Your task to perform on an android device: turn on notifications settings in the gmail app Image 0: 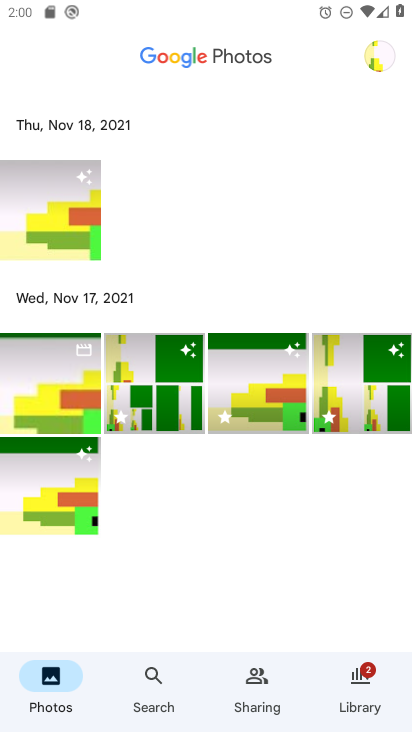
Step 0: press home button
Your task to perform on an android device: turn on notifications settings in the gmail app Image 1: 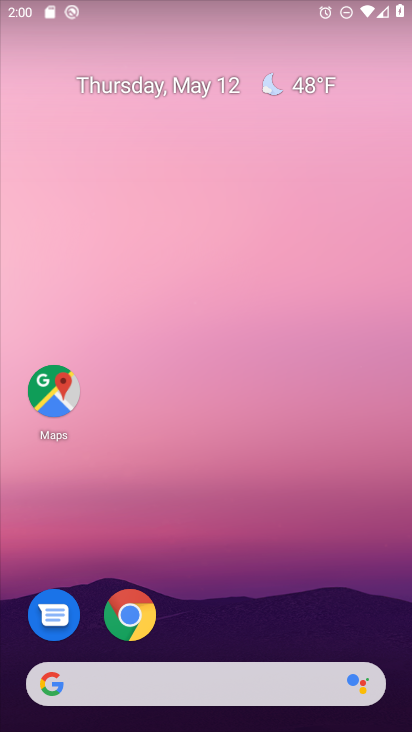
Step 1: drag from (298, 652) to (295, 16)
Your task to perform on an android device: turn on notifications settings in the gmail app Image 2: 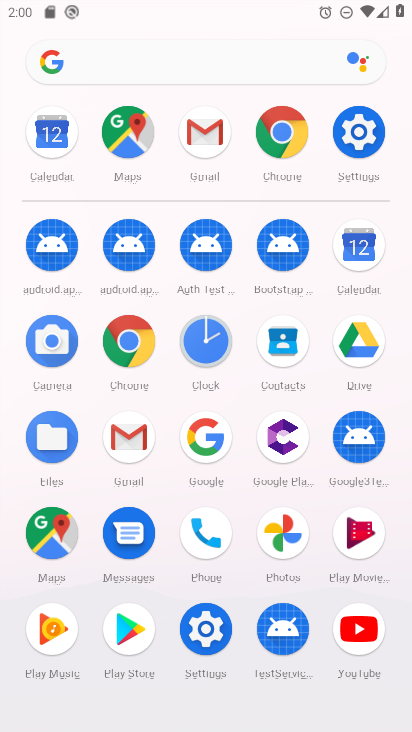
Step 2: click (125, 438)
Your task to perform on an android device: turn on notifications settings in the gmail app Image 3: 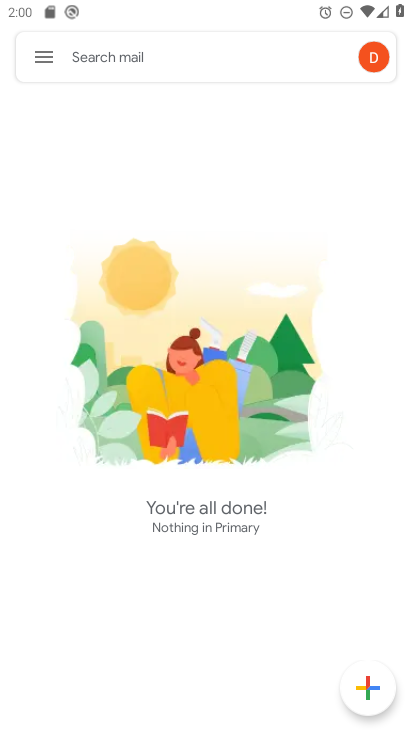
Step 3: click (49, 55)
Your task to perform on an android device: turn on notifications settings in the gmail app Image 4: 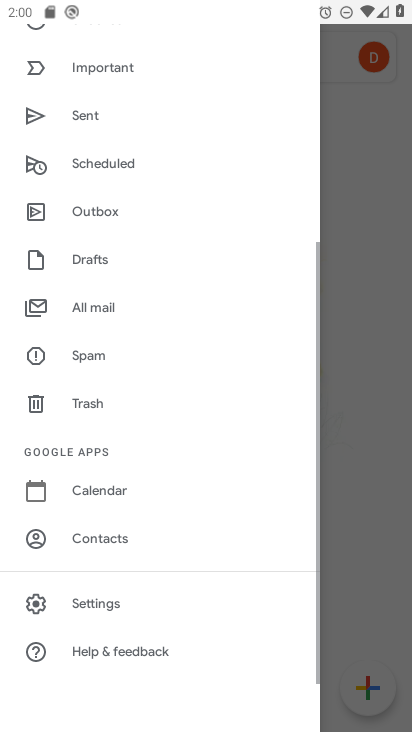
Step 4: click (138, 596)
Your task to perform on an android device: turn on notifications settings in the gmail app Image 5: 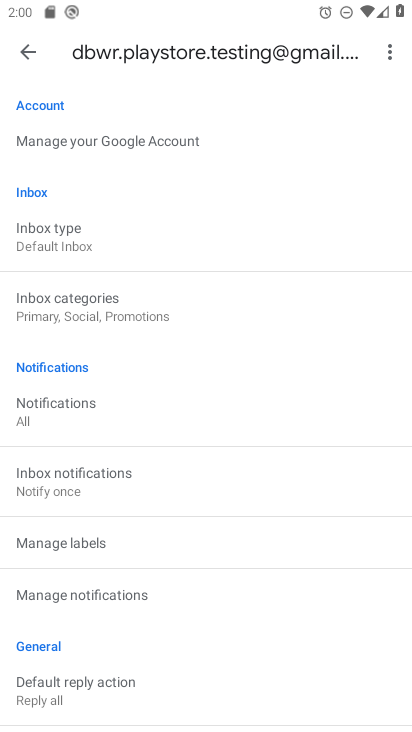
Step 5: click (190, 584)
Your task to perform on an android device: turn on notifications settings in the gmail app Image 6: 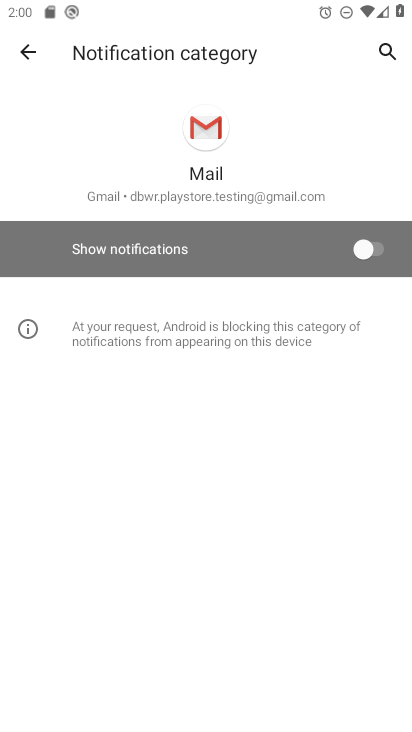
Step 6: click (374, 243)
Your task to perform on an android device: turn on notifications settings in the gmail app Image 7: 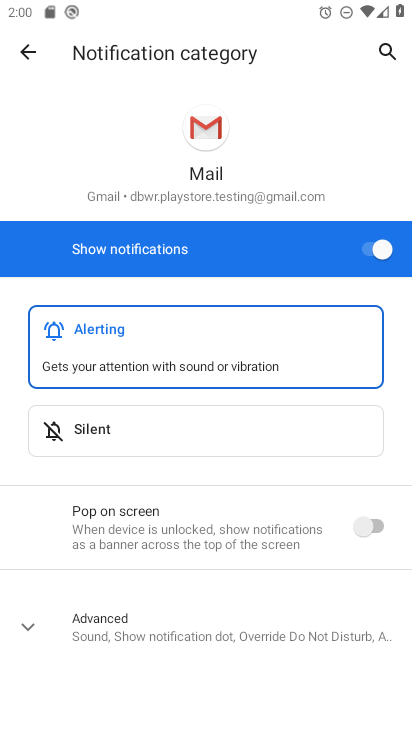
Step 7: task complete